Your task to perform on an android device: Go to Google maps Image 0: 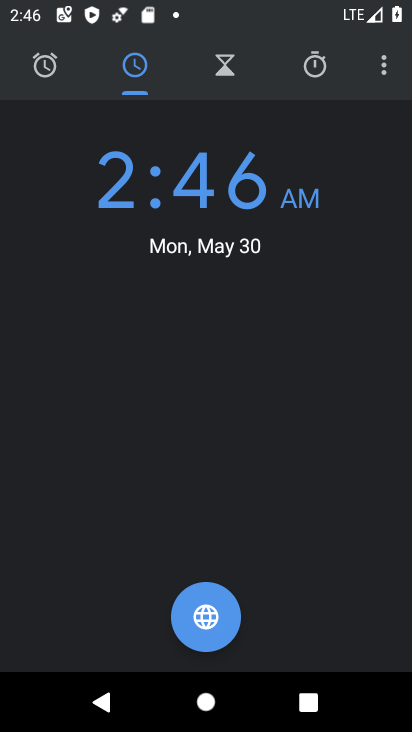
Step 0: press home button
Your task to perform on an android device: Go to Google maps Image 1: 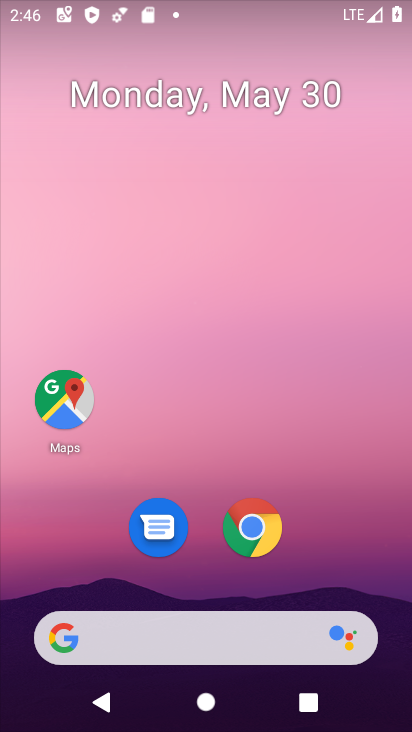
Step 1: drag from (307, 557) to (344, 96)
Your task to perform on an android device: Go to Google maps Image 2: 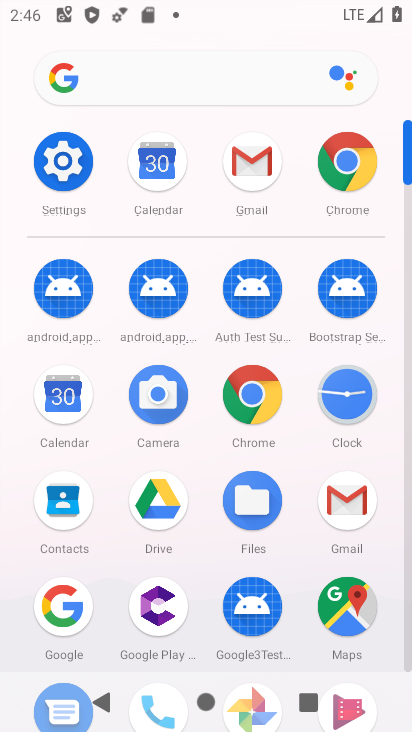
Step 2: click (346, 596)
Your task to perform on an android device: Go to Google maps Image 3: 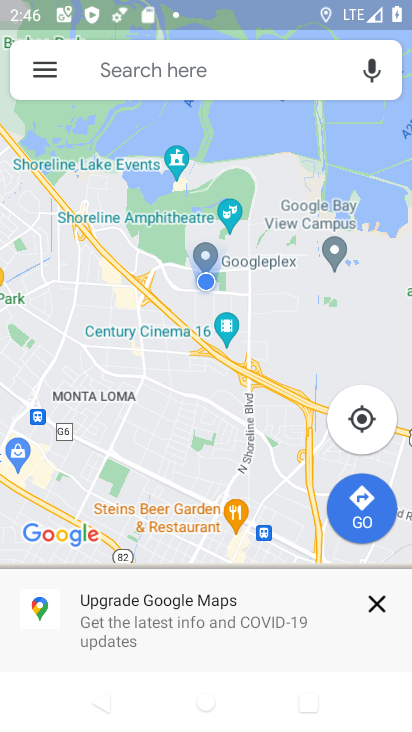
Step 3: task complete